Your task to perform on an android device: turn off data saver in the chrome app Image 0: 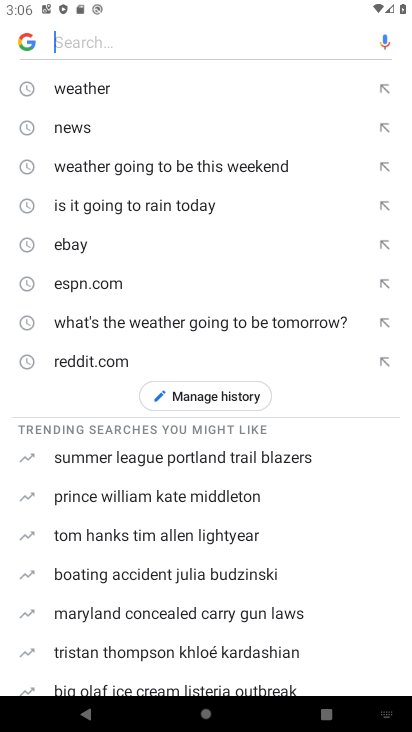
Step 0: press home button
Your task to perform on an android device: turn off data saver in the chrome app Image 1: 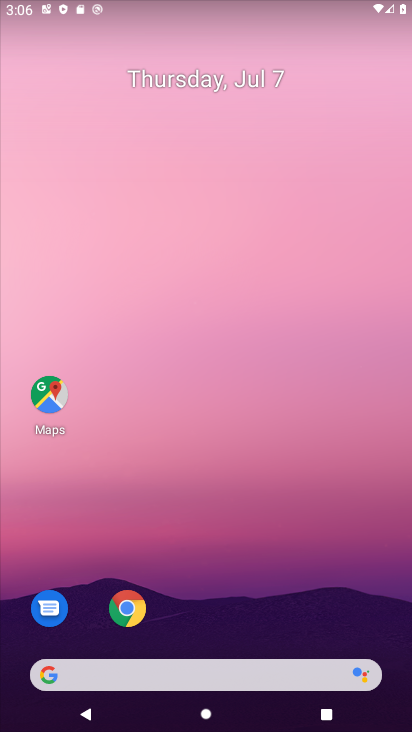
Step 1: click (126, 609)
Your task to perform on an android device: turn off data saver in the chrome app Image 2: 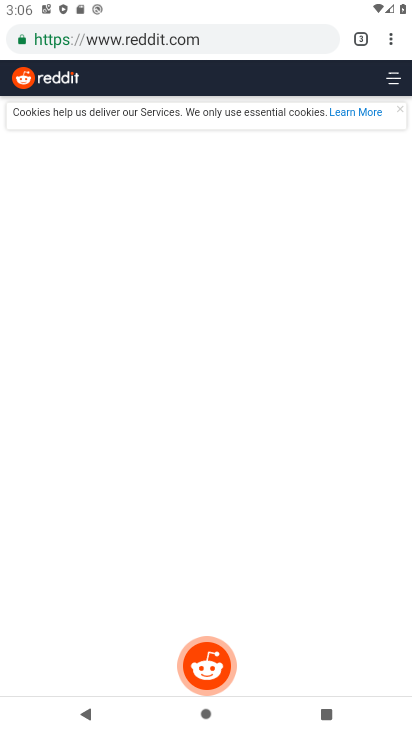
Step 2: click (387, 45)
Your task to perform on an android device: turn off data saver in the chrome app Image 3: 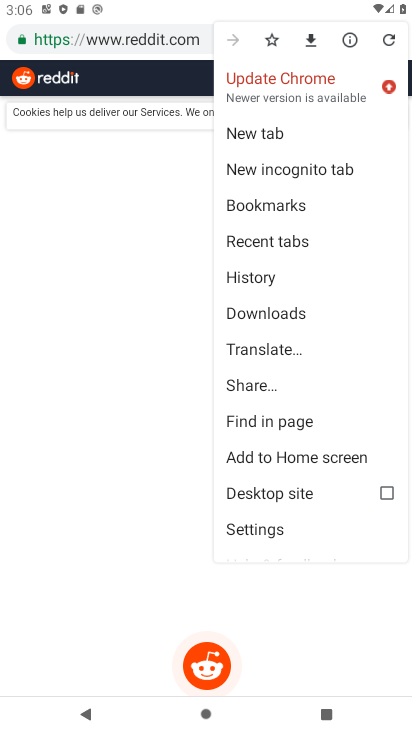
Step 3: click (264, 530)
Your task to perform on an android device: turn off data saver in the chrome app Image 4: 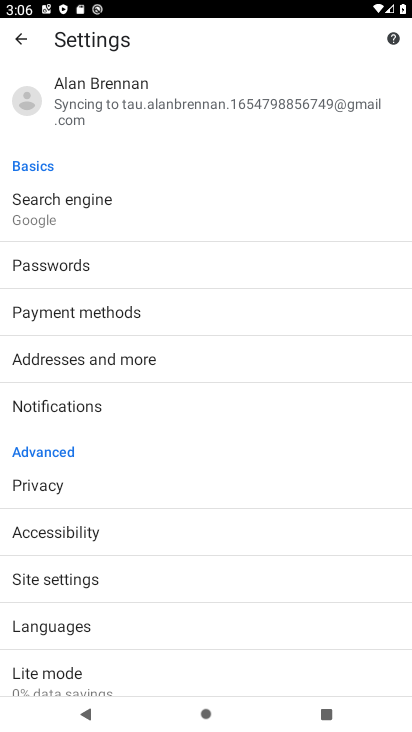
Step 4: click (49, 675)
Your task to perform on an android device: turn off data saver in the chrome app Image 5: 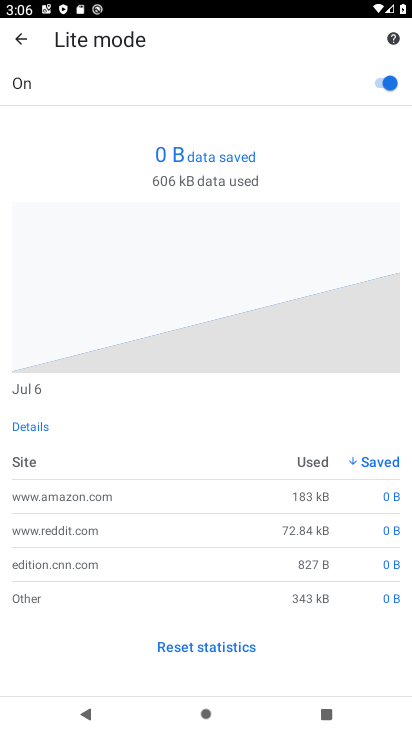
Step 5: click (377, 82)
Your task to perform on an android device: turn off data saver in the chrome app Image 6: 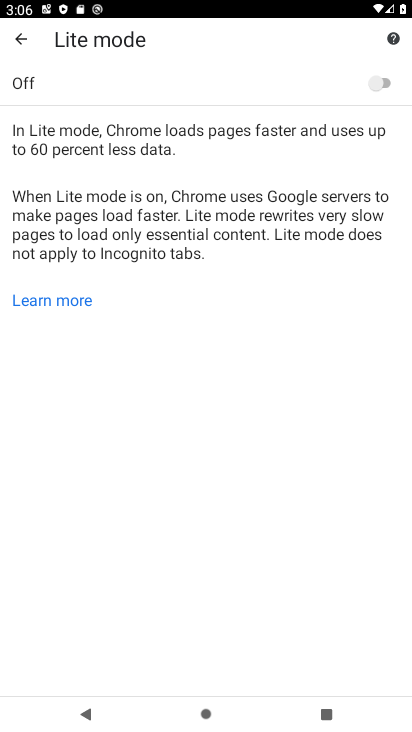
Step 6: task complete